Your task to perform on an android device: toggle show notifications on the lock screen Image 0: 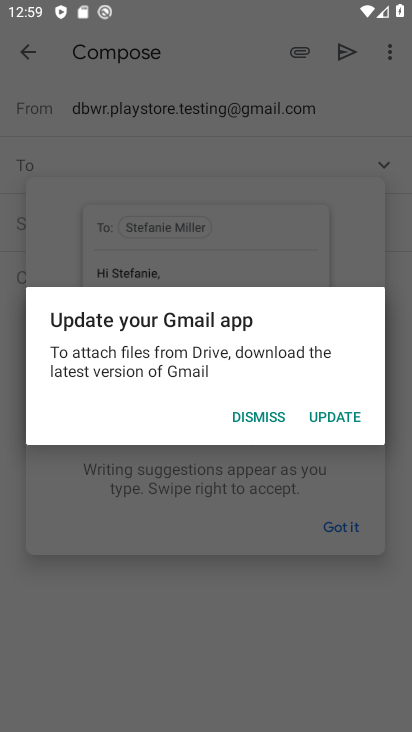
Step 0: press home button
Your task to perform on an android device: toggle show notifications on the lock screen Image 1: 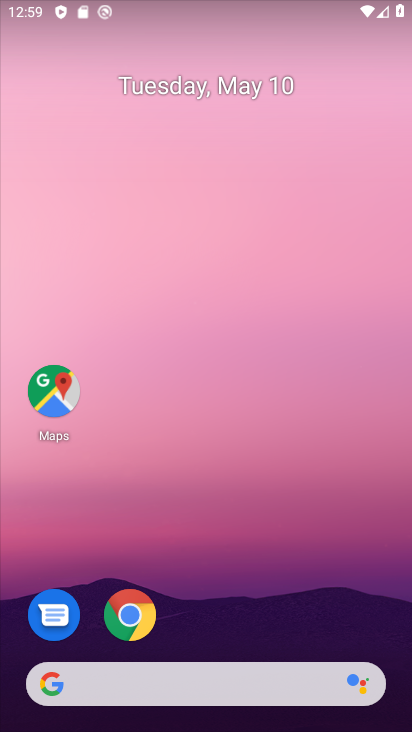
Step 1: drag from (240, 632) to (217, 60)
Your task to perform on an android device: toggle show notifications on the lock screen Image 2: 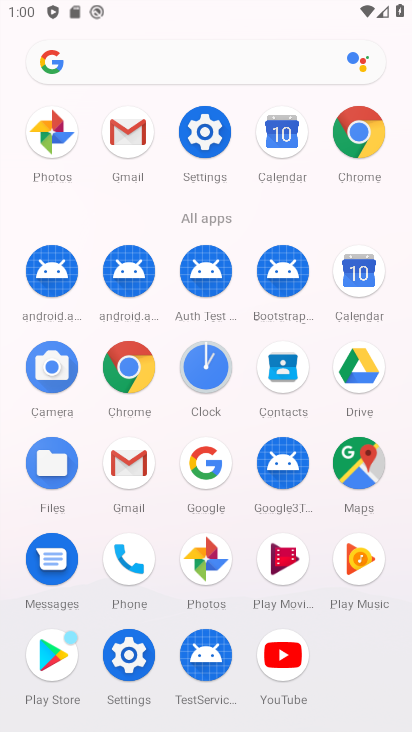
Step 2: click (211, 160)
Your task to perform on an android device: toggle show notifications on the lock screen Image 3: 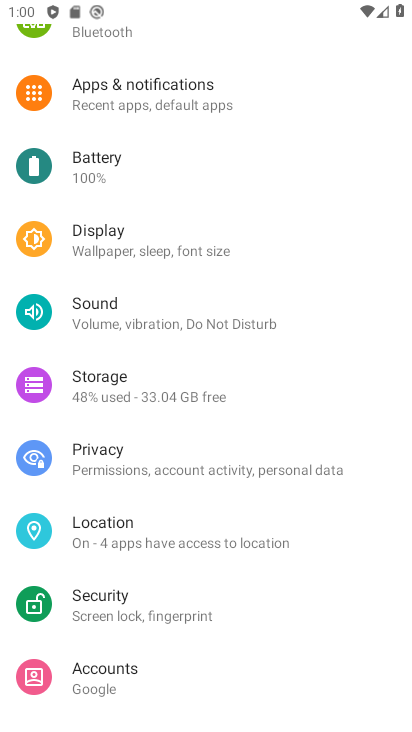
Step 3: click (189, 104)
Your task to perform on an android device: toggle show notifications on the lock screen Image 4: 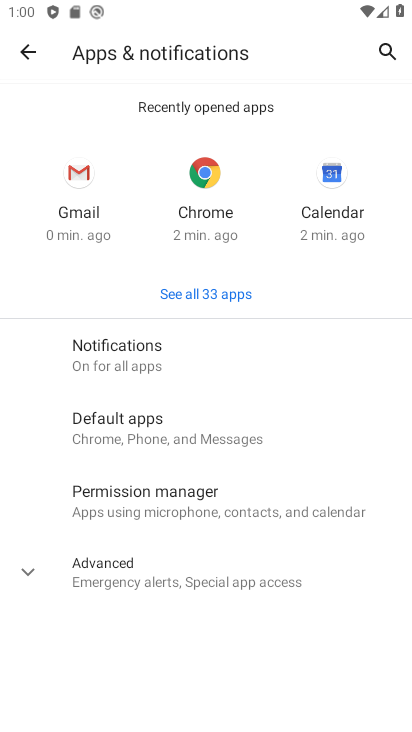
Step 4: click (141, 354)
Your task to perform on an android device: toggle show notifications on the lock screen Image 5: 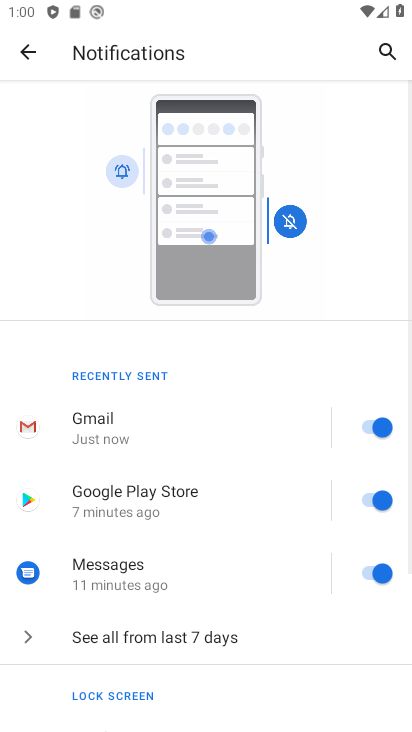
Step 5: drag from (170, 614) to (242, 233)
Your task to perform on an android device: toggle show notifications on the lock screen Image 6: 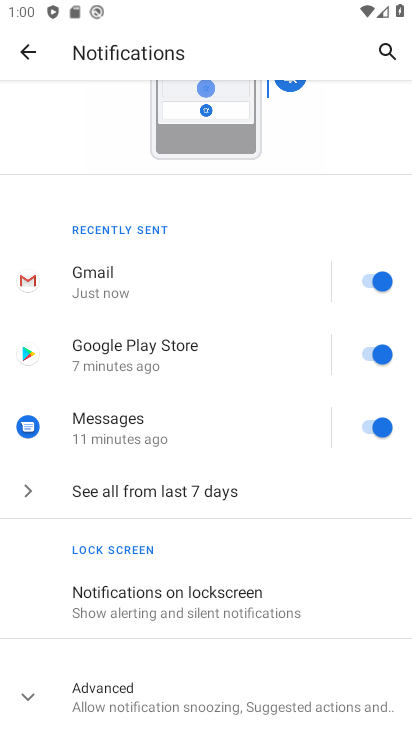
Step 6: click (180, 617)
Your task to perform on an android device: toggle show notifications on the lock screen Image 7: 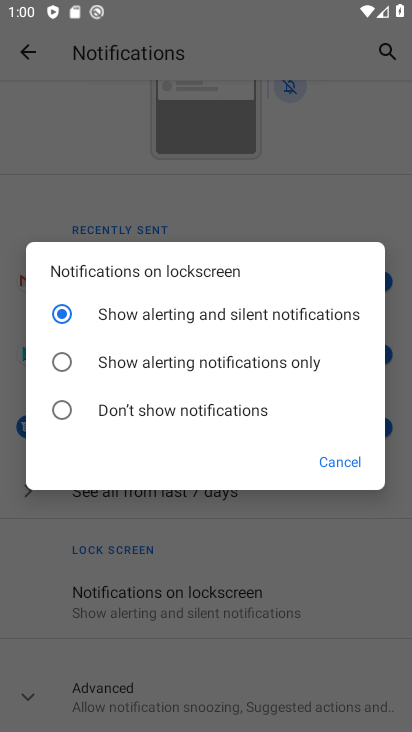
Step 7: click (59, 408)
Your task to perform on an android device: toggle show notifications on the lock screen Image 8: 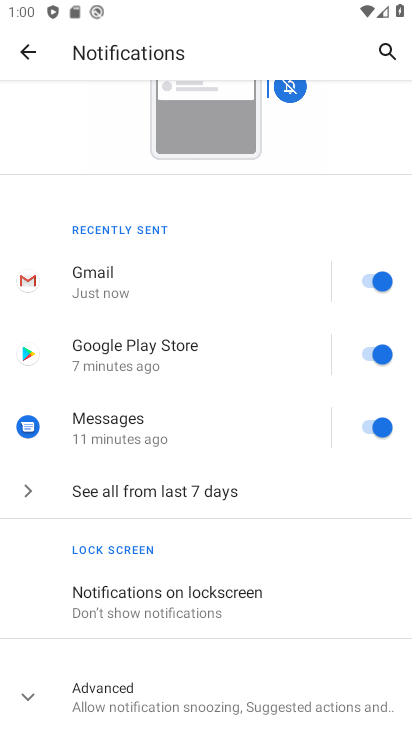
Step 8: task complete